Your task to perform on an android device: toggle airplane mode Image 0: 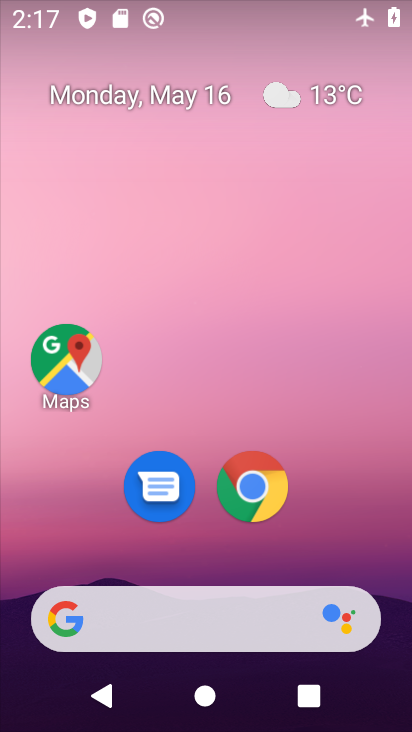
Step 0: drag from (358, 516) to (263, 7)
Your task to perform on an android device: toggle airplane mode Image 1: 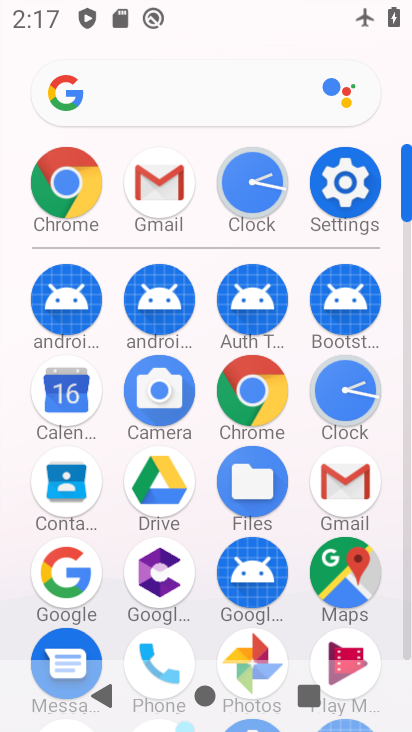
Step 1: click (337, 194)
Your task to perform on an android device: toggle airplane mode Image 2: 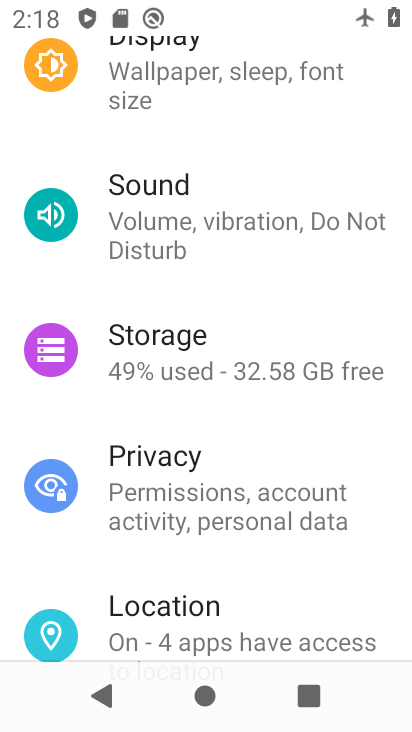
Step 2: drag from (222, 134) to (217, 546)
Your task to perform on an android device: toggle airplane mode Image 3: 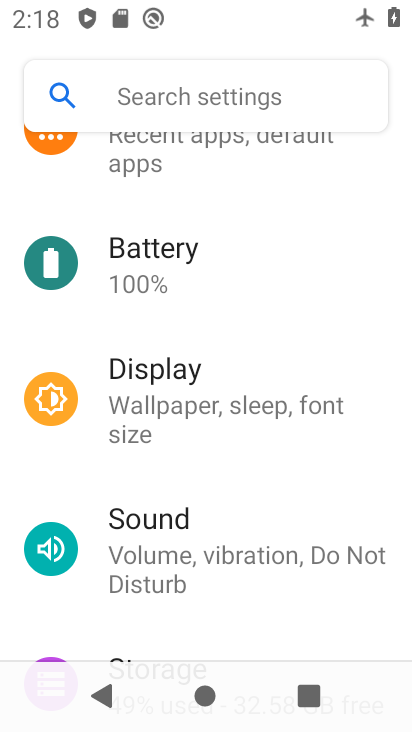
Step 3: drag from (148, 153) to (175, 610)
Your task to perform on an android device: toggle airplane mode Image 4: 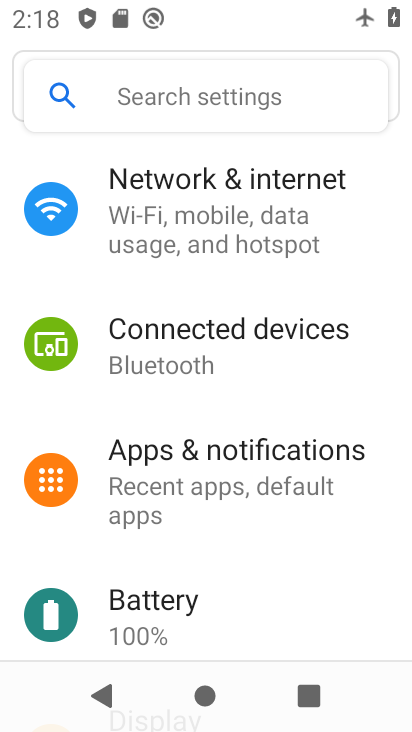
Step 4: drag from (196, 214) to (216, 560)
Your task to perform on an android device: toggle airplane mode Image 5: 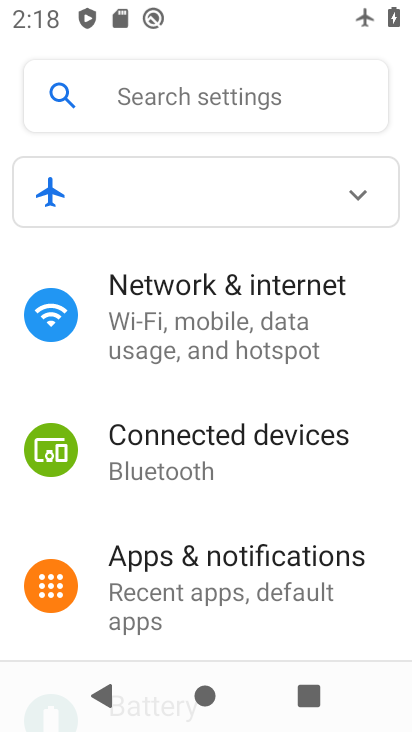
Step 5: click (155, 314)
Your task to perform on an android device: toggle airplane mode Image 6: 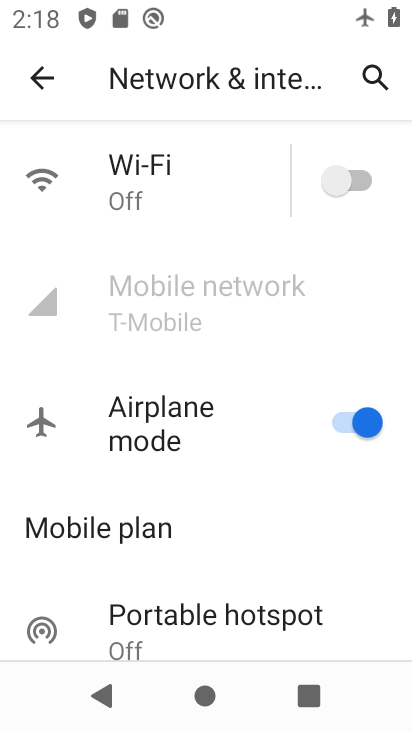
Step 6: drag from (212, 556) to (153, 312)
Your task to perform on an android device: toggle airplane mode Image 7: 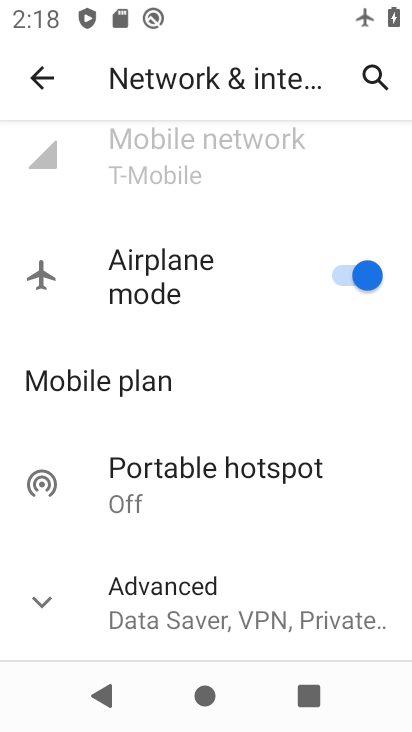
Step 7: click (359, 271)
Your task to perform on an android device: toggle airplane mode Image 8: 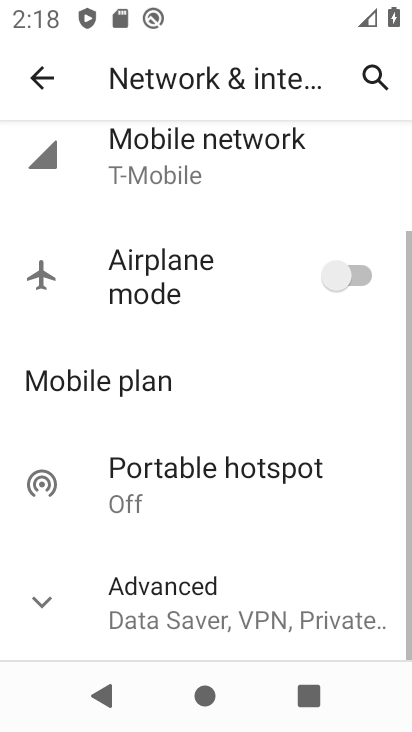
Step 8: task complete